Your task to perform on an android device: star an email in the gmail app Image 0: 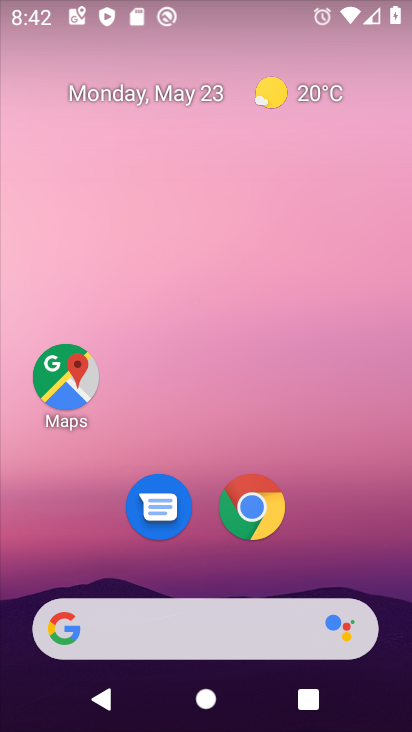
Step 0: drag from (367, 583) to (327, 10)
Your task to perform on an android device: star an email in the gmail app Image 1: 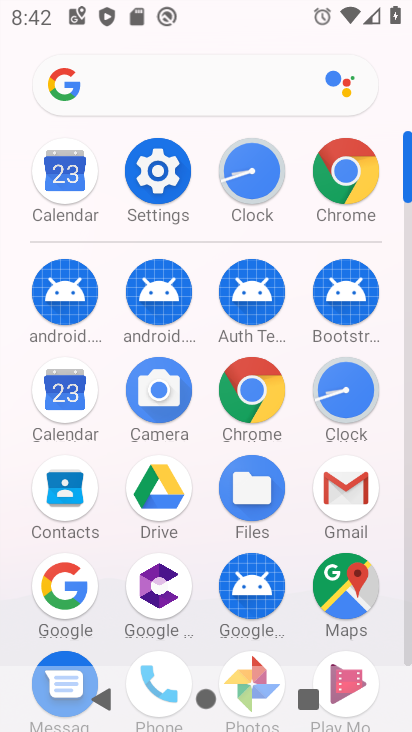
Step 1: click (345, 494)
Your task to perform on an android device: star an email in the gmail app Image 2: 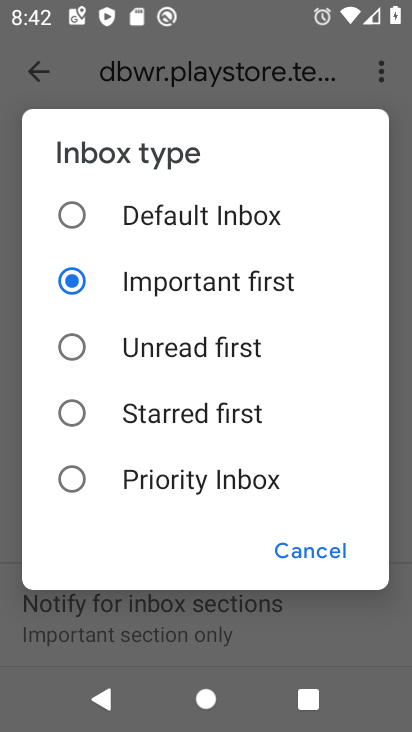
Step 2: click (334, 547)
Your task to perform on an android device: star an email in the gmail app Image 3: 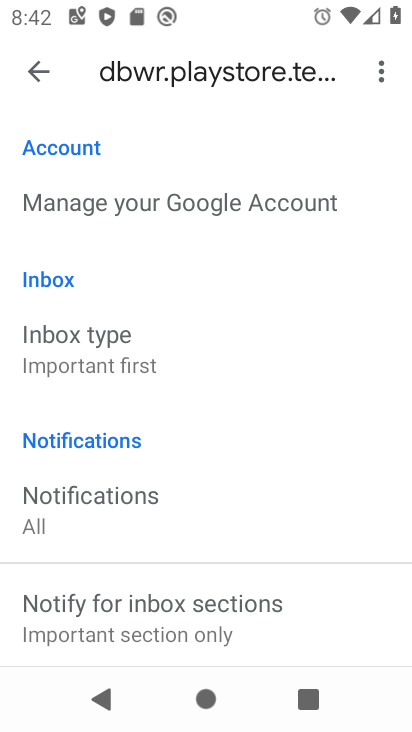
Step 3: click (22, 66)
Your task to perform on an android device: star an email in the gmail app Image 4: 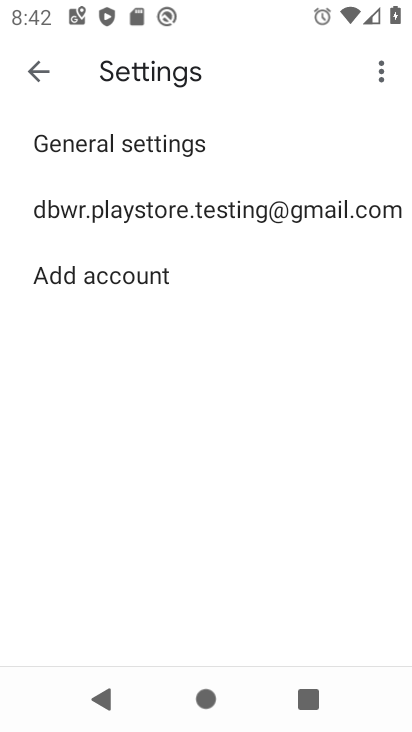
Step 4: click (22, 66)
Your task to perform on an android device: star an email in the gmail app Image 5: 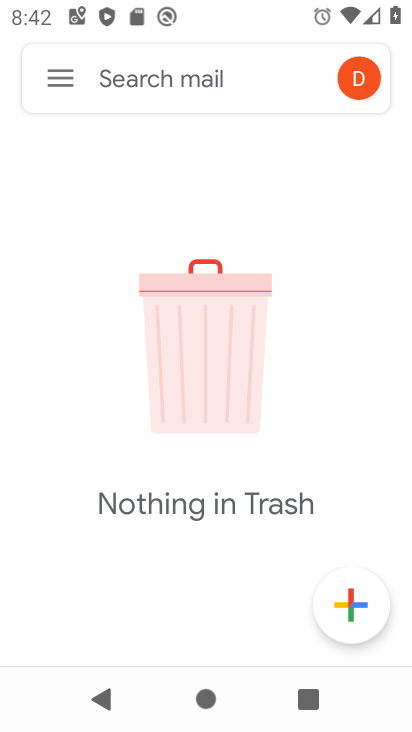
Step 5: click (53, 75)
Your task to perform on an android device: star an email in the gmail app Image 6: 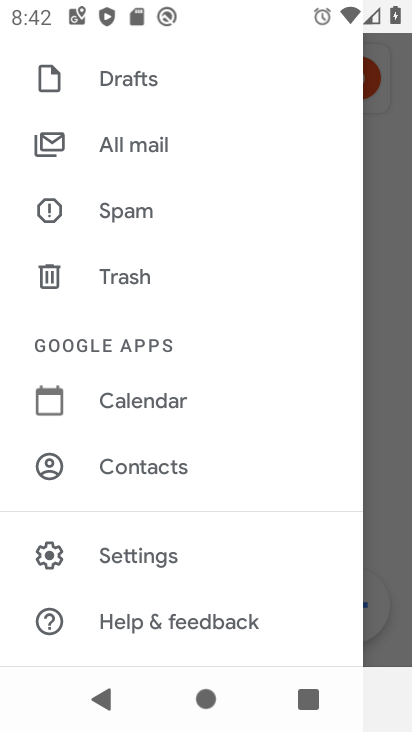
Step 6: drag from (255, 334) to (276, 505)
Your task to perform on an android device: star an email in the gmail app Image 7: 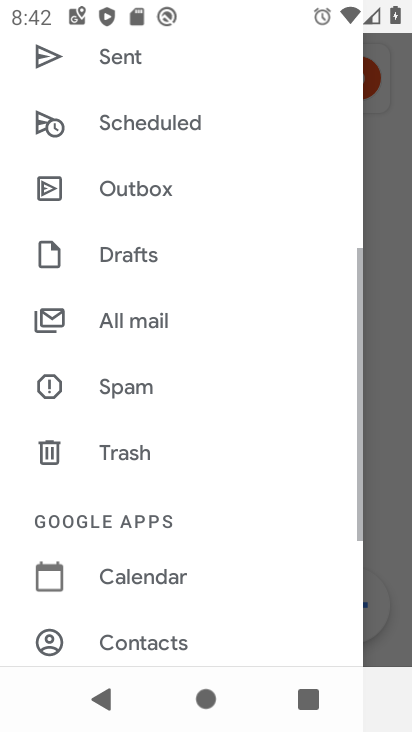
Step 7: click (178, 326)
Your task to perform on an android device: star an email in the gmail app Image 8: 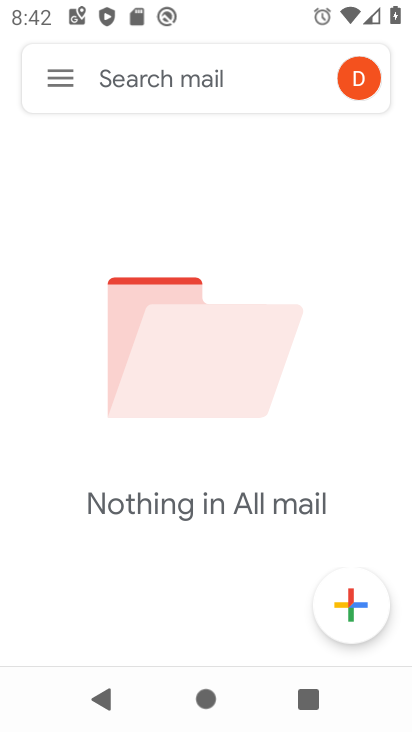
Step 8: task complete